Your task to perform on an android device: turn off airplane mode Image 0: 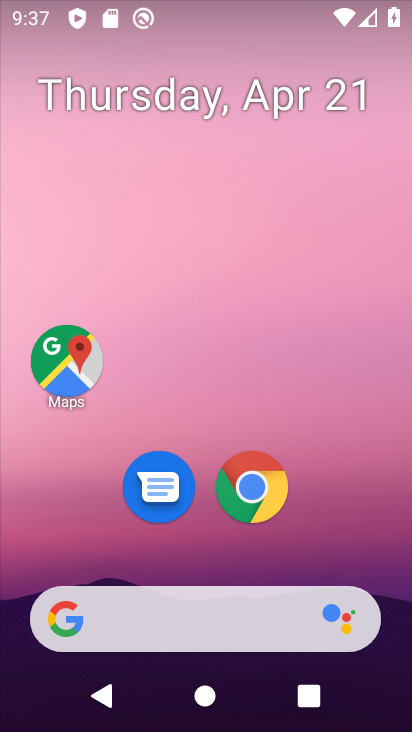
Step 0: drag from (390, 575) to (374, 59)
Your task to perform on an android device: turn off airplane mode Image 1: 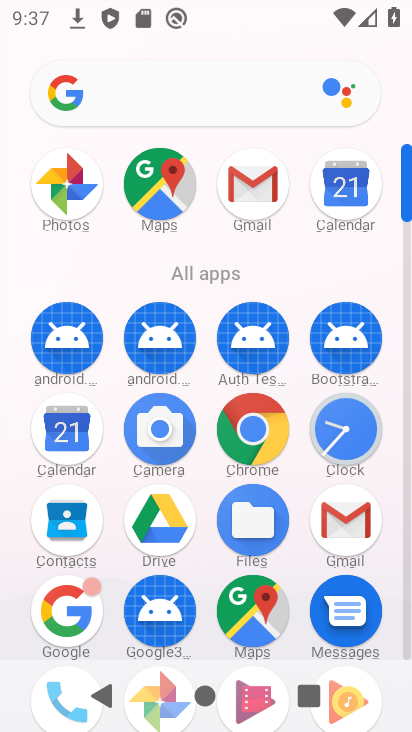
Step 1: click (395, 80)
Your task to perform on an android device: turn off airplane mode Image 2: 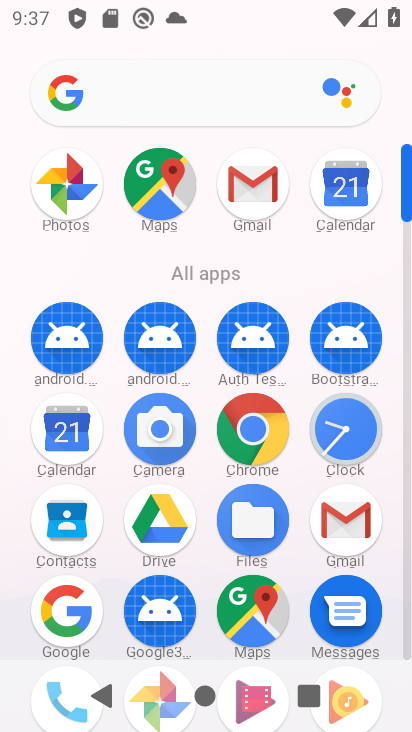
Step 2: drag from (403, 155) to (394, 2)
Your task to perform on an android device: turn off airplane mode Image 3: 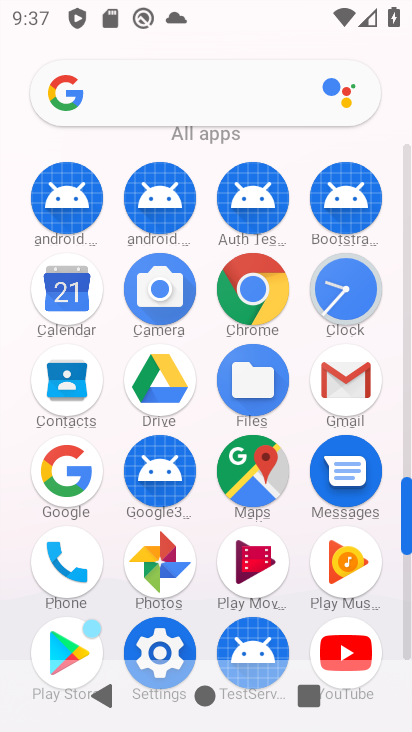
Step 3: click (151, 634)
Your task to perform on an android device: turn off airplane mode Image 4: 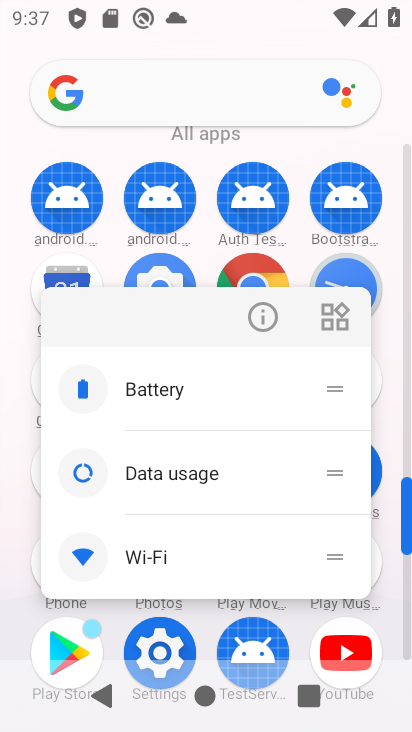
Step 4: click (149, 632)
Your task to perform on an android device: turn off airplane mode Image 5: 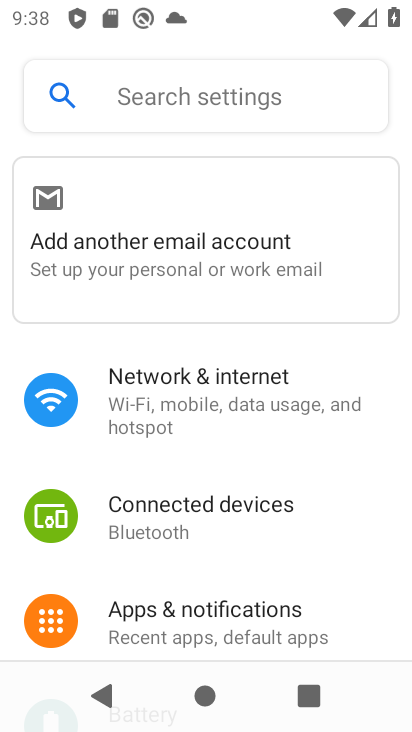
Step 5: click (146, 398)
Your task to perform on an android device: turn off airplane mode Image 6: 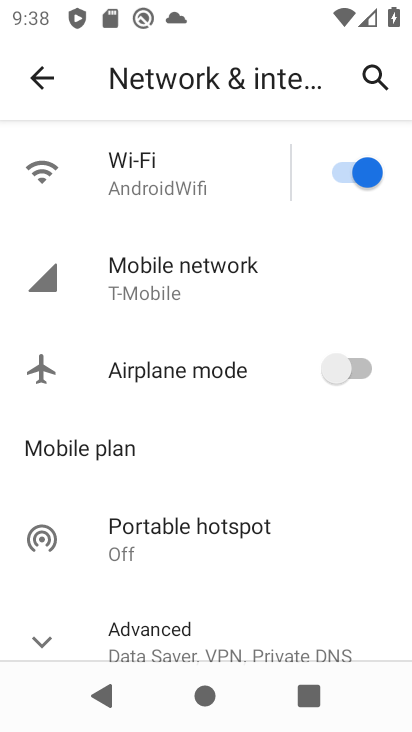
Step 6: task complete